Your task to perform on an android device: Find coffee shops on Maps Image 0: 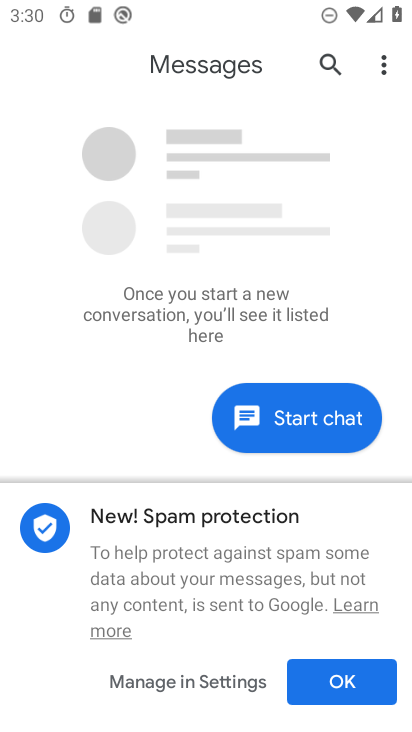
Step 0: press home button
Your task to perform on an android device: Find coffee shops on Maps Image 1: 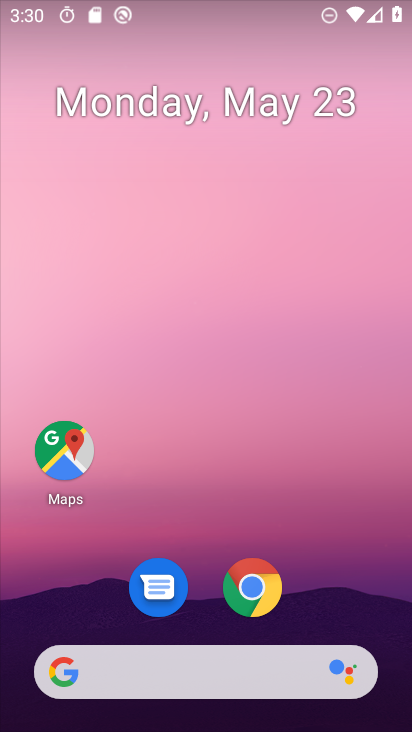
Step 1: click (57, 438)
Your task to perform on an android device: Find coffee shops on Maps Image 2: 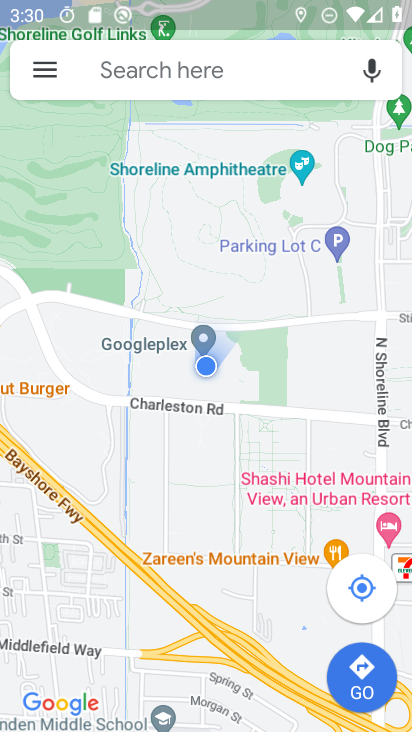
Step 2: click (212, 69)
Your task to perform on an android device: Find coffee shops on Maps Image 3: 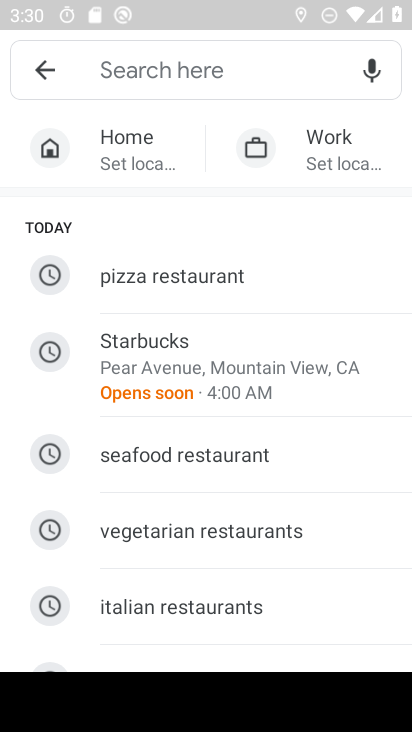
Step 3: type "coffee shops"
Your task to perform on an android device: Find coffee shops on Maps Image 4: 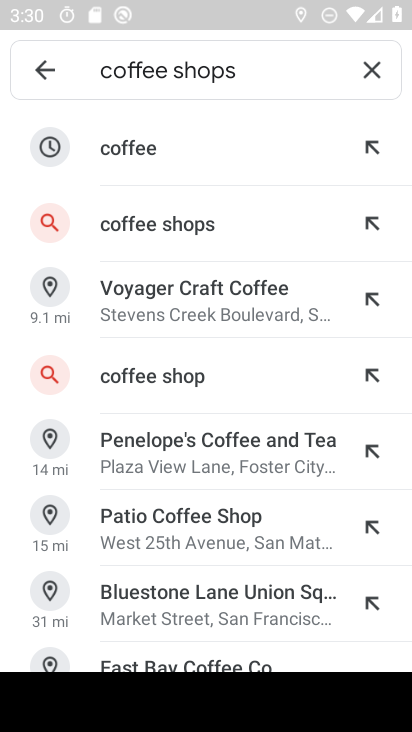
Step 4: click (237, 219)
Your task to perform on an android device: Find coffee shops on Maps Image 5: 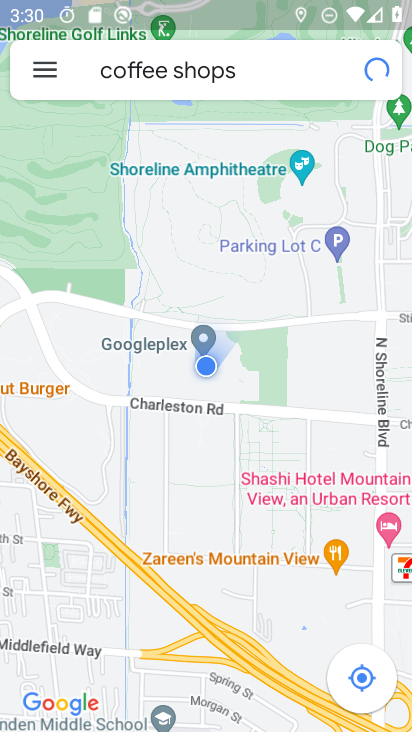
Step 5: task complete